Your task to perform on an android device: turn on bluetooth scan Image 0: 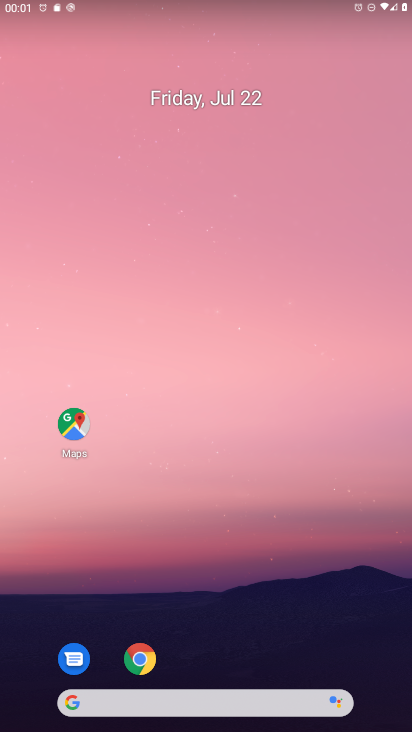
Step 0: drag from (189, 691) to (215, 162)
Your task to perform on an android device: turn on bluetooth scan Image 1: 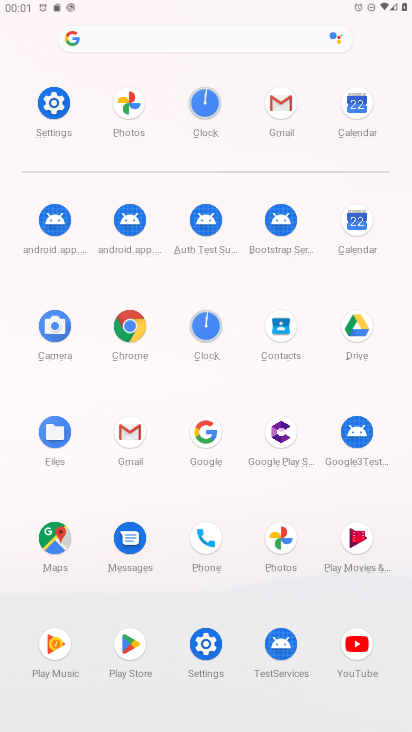
Step 1: click (206, 641)
Your task to perform on an android device: turn on bluetooth scan Image 2: 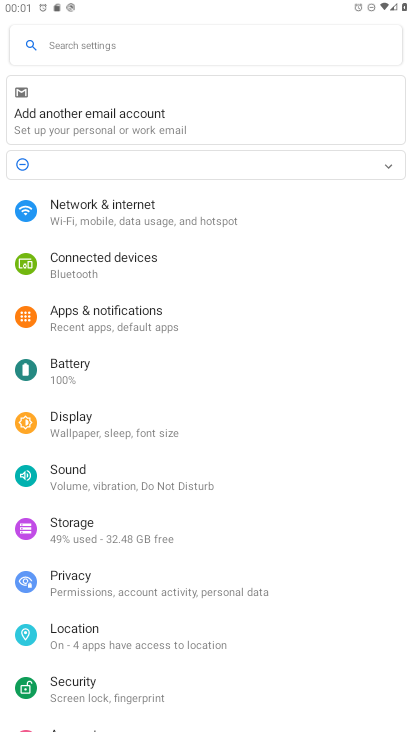
Step 2: click (90, 640)
Your task to perform on an android device: turn on bluetooth scan Image 3: 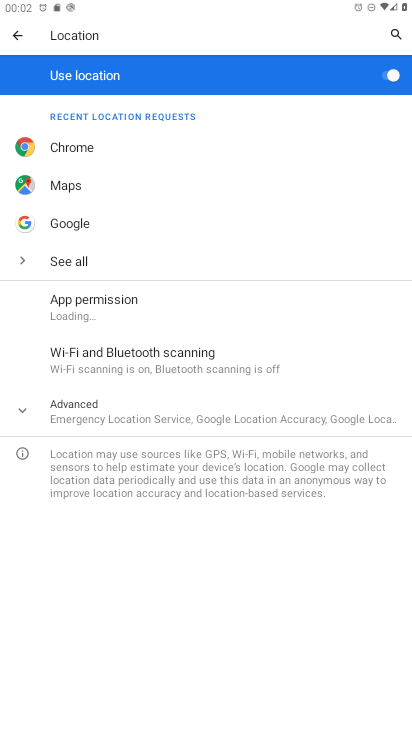
Step 3: click (172, 358)
Your task to perform on an android device: turn on bluetooth scan Image 4: 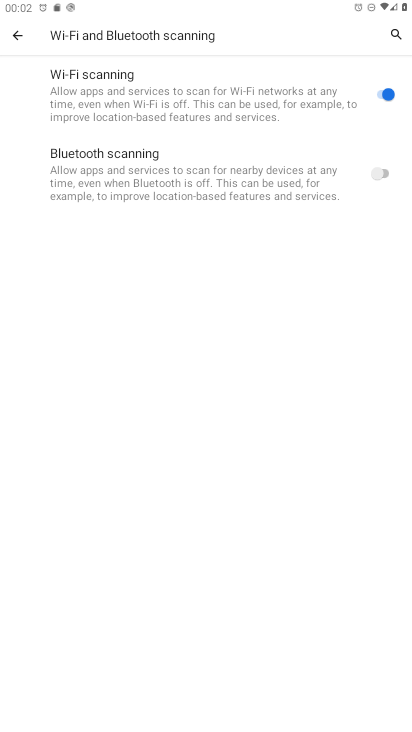
Step 4: click (380, 173)
Your task to perform on an android device: turn on bluetooth scan Image 5: 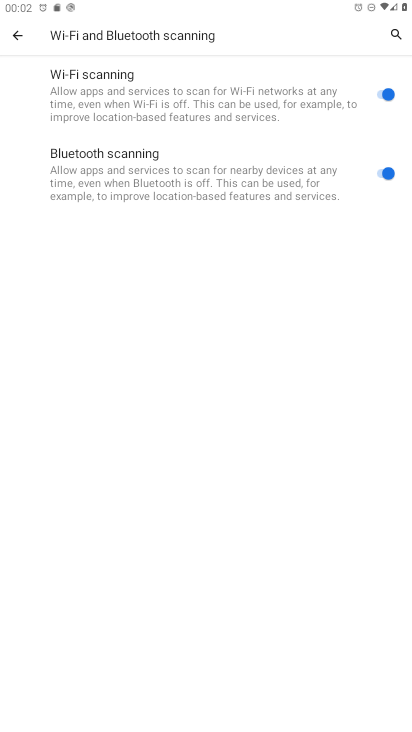
Step 5: task complete